Your task to perform on an android device: Open Chrome and go to settings Image 0: 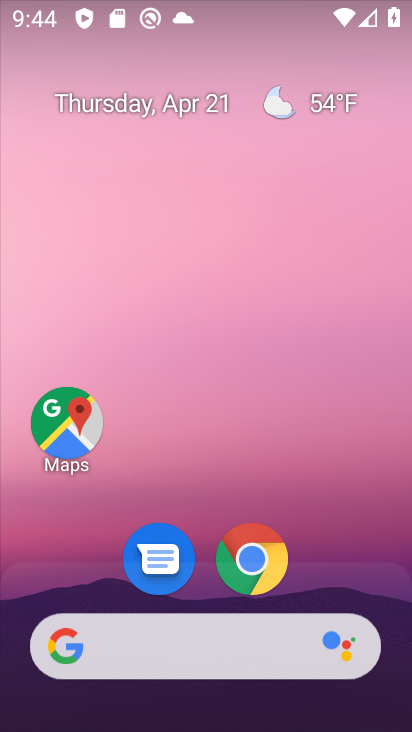
Step 0: click (261, 560)
Your task to perform on an android device: Open Chrome and go to settings Image 1: 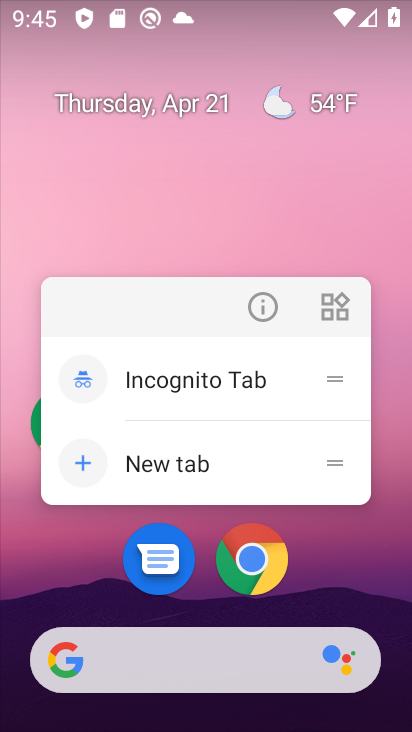
Step 1: click (261, 560)
Your task to perform on an android device: Open Chrome and go to settings Image 2: 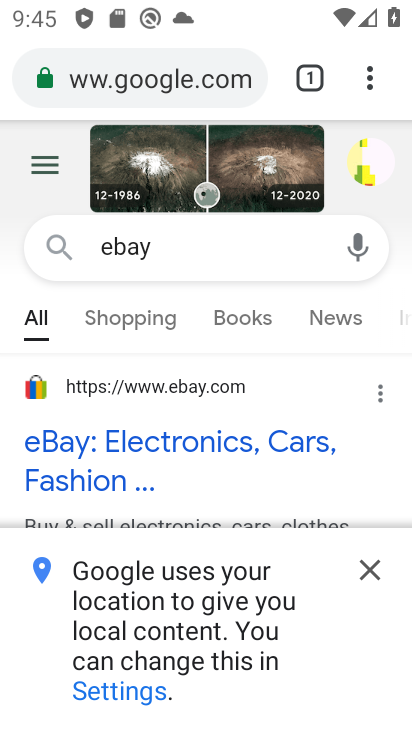
Step 2: click (367, 75)
Your task to perform on an android device: Open Chrome and go to settings Image 3: 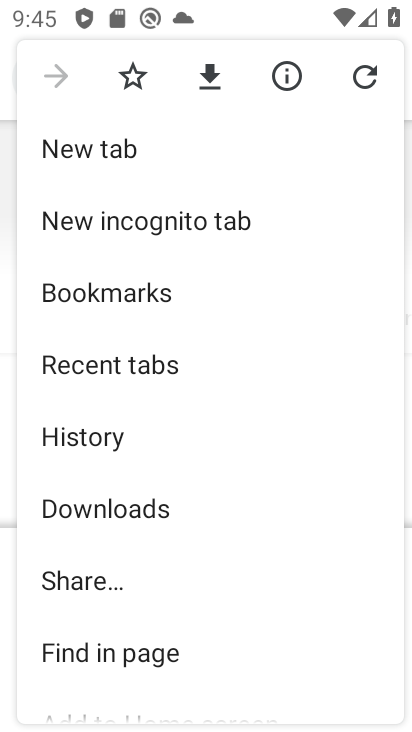
Step 3: drag from (303, 532) to (264, 108)
Your task to perform on an android device: Open Chrome and go to settings Image 4: 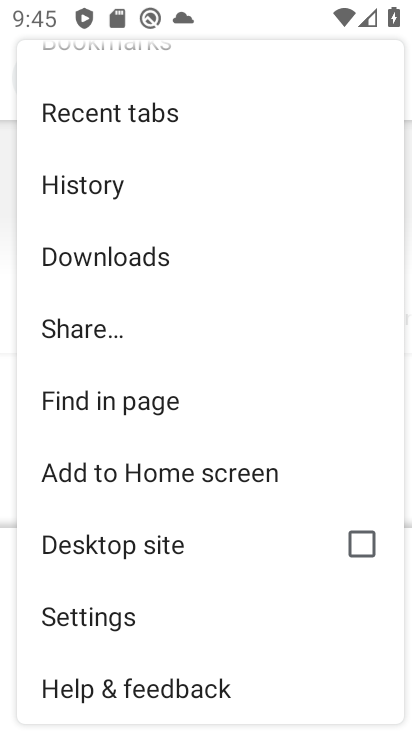
Step 4: click (92, 610)
Your task to perform on an android device: Open Chrome and go to settings Image 5: 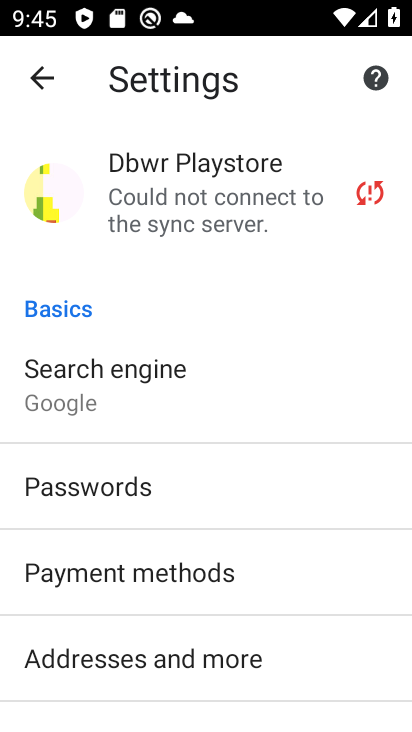
Step 5: task complete